Your task to perform on an android device: Open Chrome and go to settings Image 0: 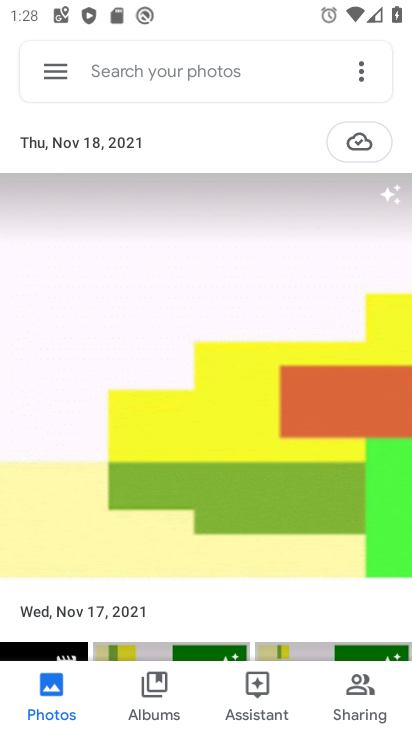
Step 0: press home button
Your task to perform on an android device: Open Chrome and go to settings Image 1: 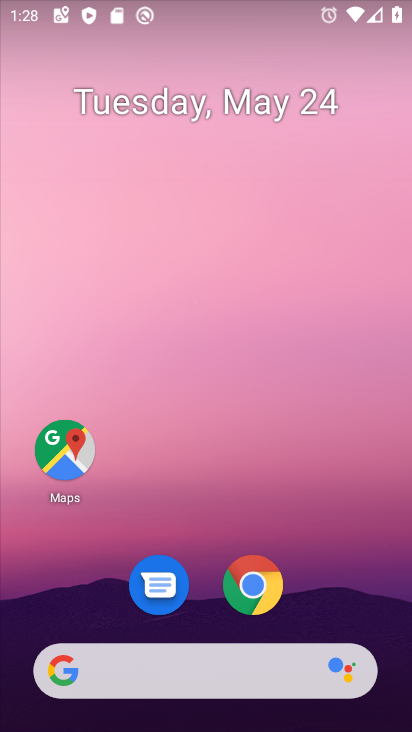
Step 1: click (255, 577)
Your task to perform on an android device: Open Chrome and go to settings Image 2: 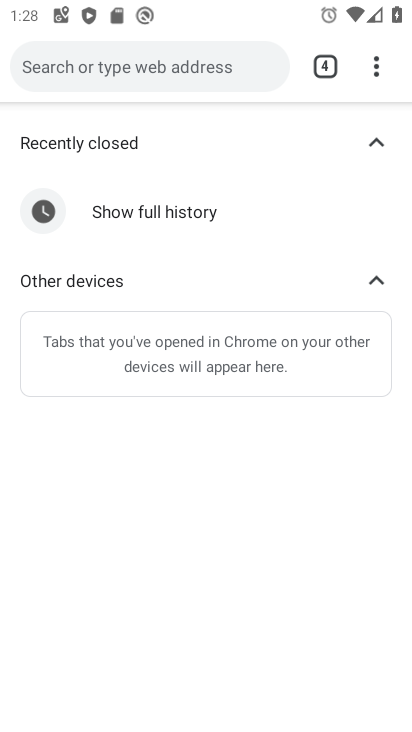
Step 2: click (364, 59)
Your task to perform on an android device: Open Chrome and go to settings Image 3: 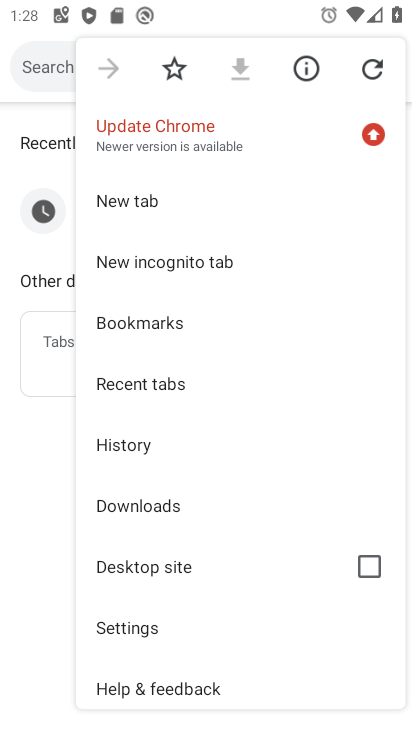
Step 3: click (185, 620)
Your task to perform on an android device: Open Chrome and go to settings Image 4: 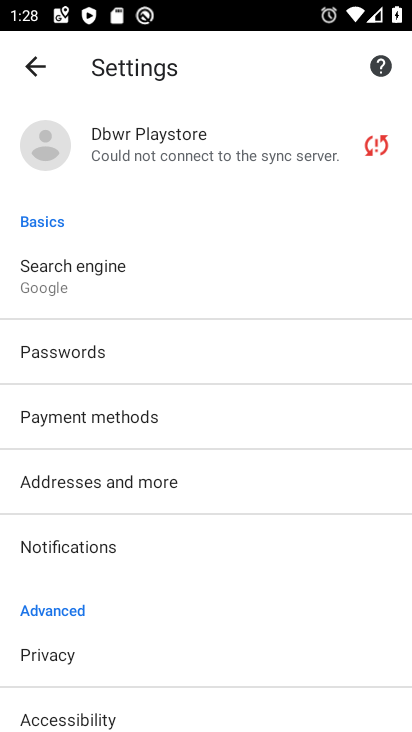
Step 4: task complete